Your task to perform on an android device: What's the weather today? Image 0: 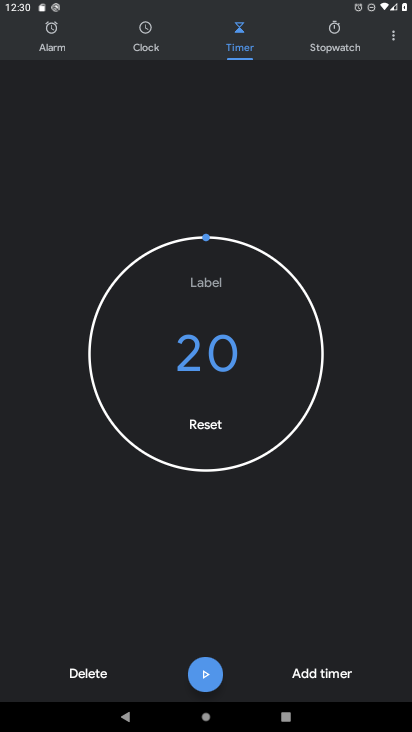
Step 0: press home button
Your task to perform on an android device: What's the weather today? Image 1: 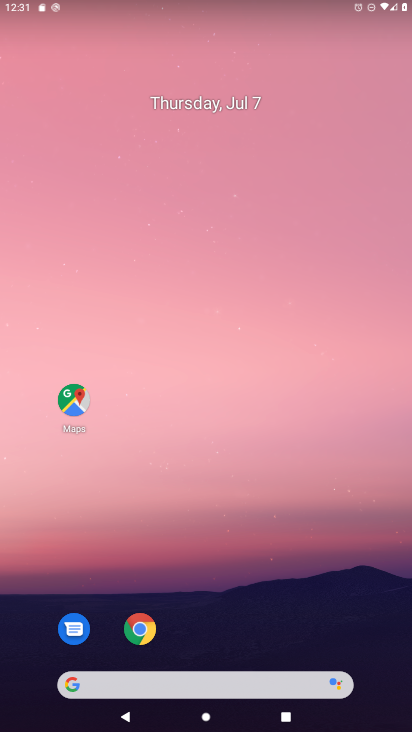
Step 1: drag from (205, 634) to (296, 103)
Your task to perform on an android device: What's the weather today? Image 2: 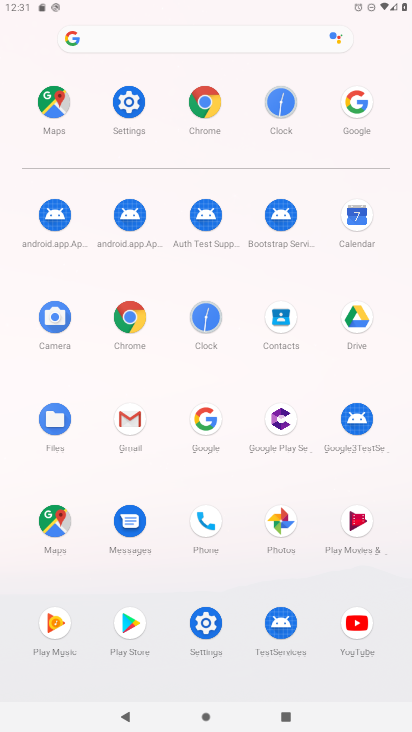
Step 2: click (214, 428)
Your task to perform on an android device: What's the weather today? Image 3: 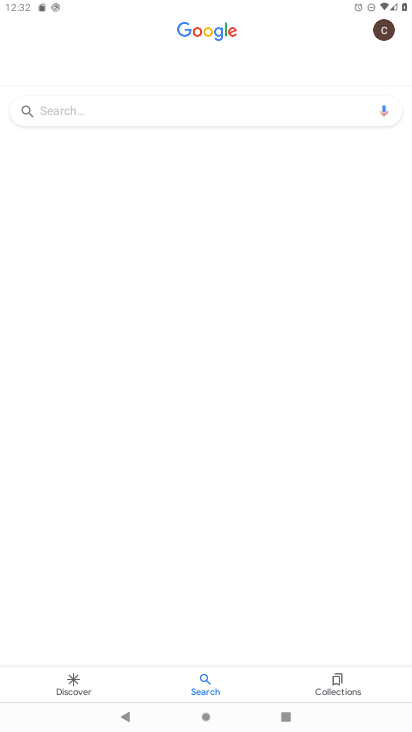
Step 3: press home button
Your task to perform on an android device: What's the weather today? Image 4: 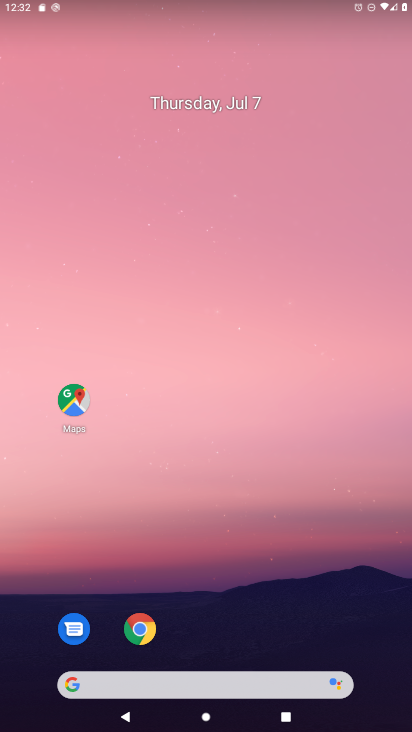
Step 4: drag from (194, 651) to (202, 124)
Your task to perform on an android device: What's the weather today? Image 5: 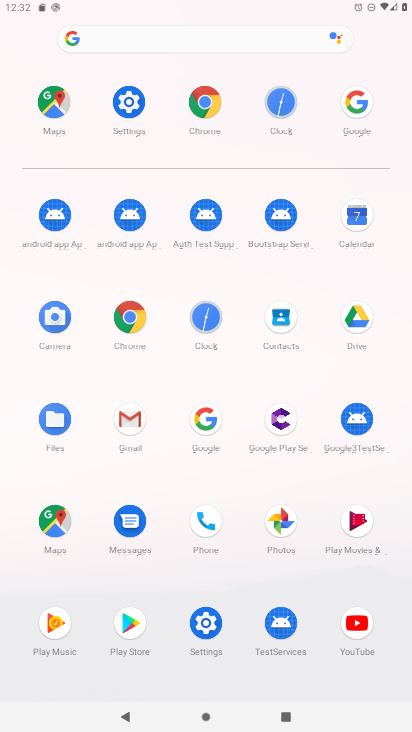
Step 5: click (204, 409)
Your task to perform on an android device: What's the weather today? Image 6: 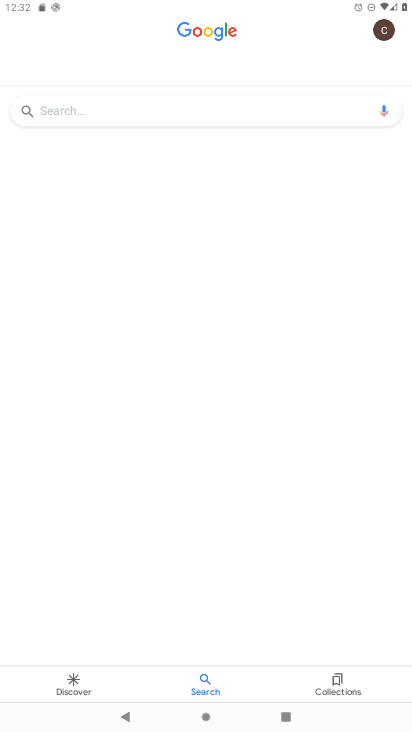
Step 6: click (170, 113)
Your task to perform on an android device: What's the weather today? Image 7: 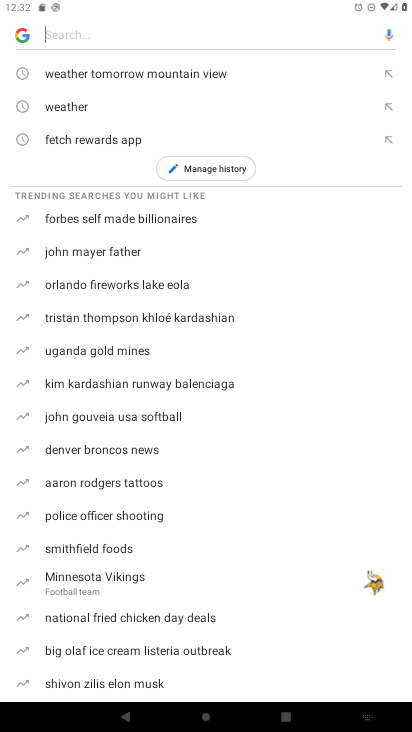
Step 7: click (93, 109)
Your task to perform on an android device: What's the weather today? Image 8: 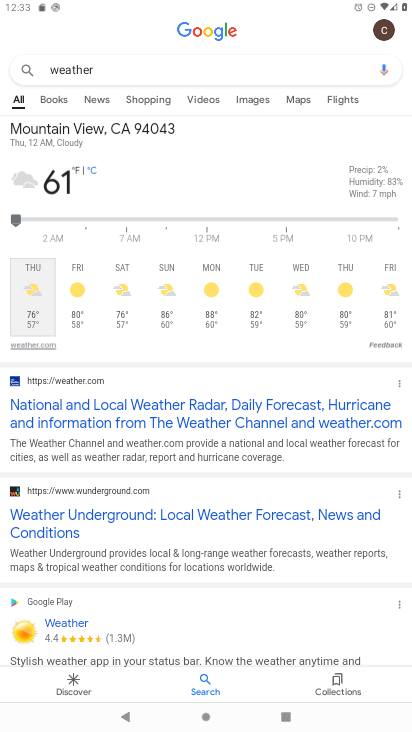
Step 8: task complete